Your task to perform on an android device: toggle javascript in the chrome app Image 0: 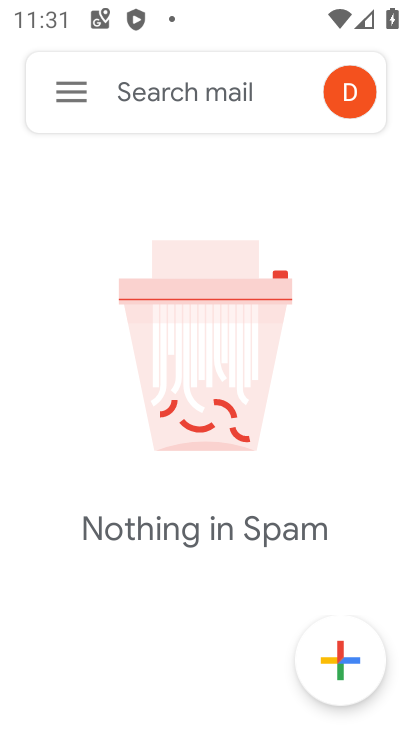
Step 0: press home button
Your task to perform on an android device: toggle javascript in the chrome app Image 1: 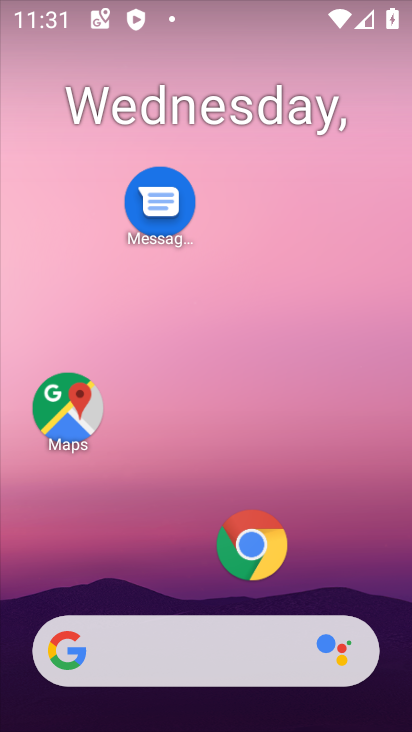
Step 1: click (253, 575)
Your task to perform on an android device: toggle javascript in the chrome app Image 2: 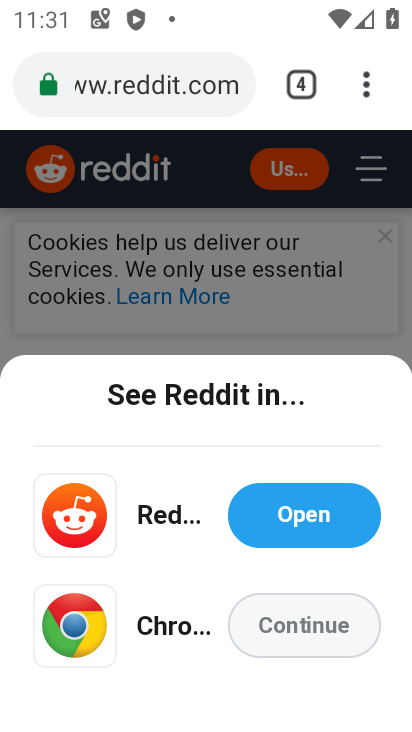
Step 2: click (361, 80)
Your task to perform on an android device: toggle javascript in the chrome app Image 3: 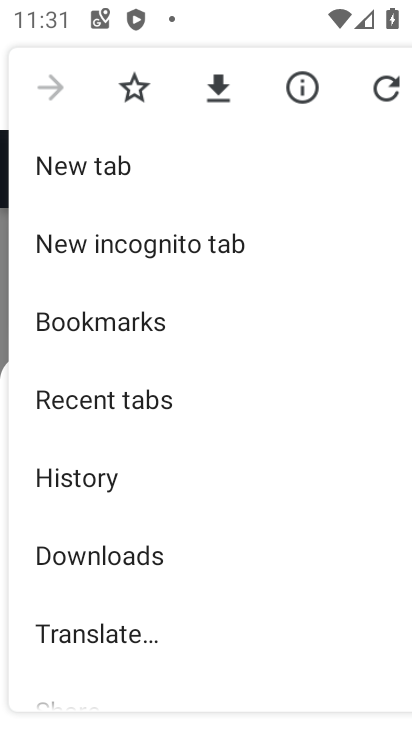
Step 3: drag from (213, 578) to (202, 325)
Your task to perform on an android device: toggle javascript in the chrome app Image 4: 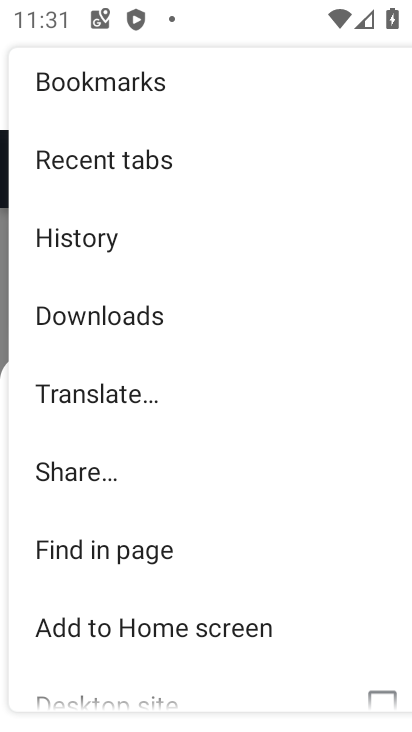
Step 4: drag from (229, 565) to (233, 325)
Your task to perform on an android device: toggle javascript in the chrome app Image 5: 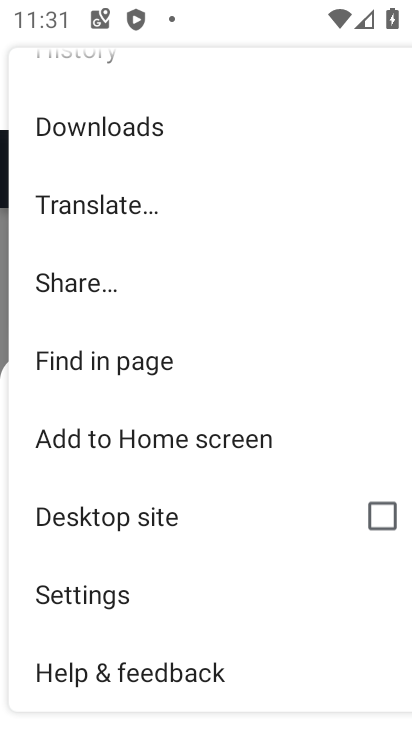
Step 5: click (174, 599)
Your task to perform on an android device: toggle javascript in the chrome app Image 6: 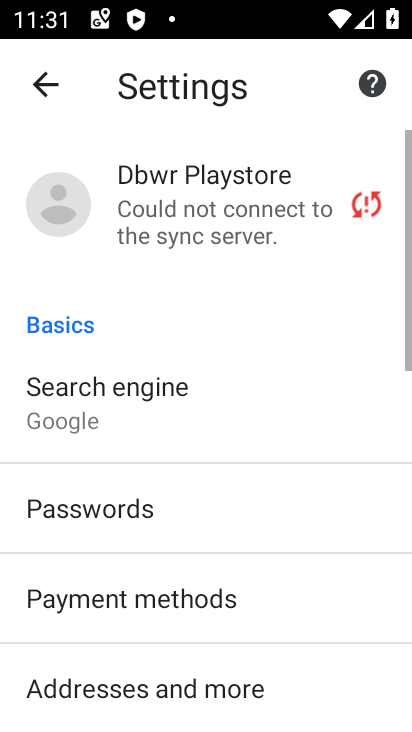
Step 6: drag from (182, 593) to (234, 250)
Your task to perform on an android device: toggle javascript in the chrome app Image 7: 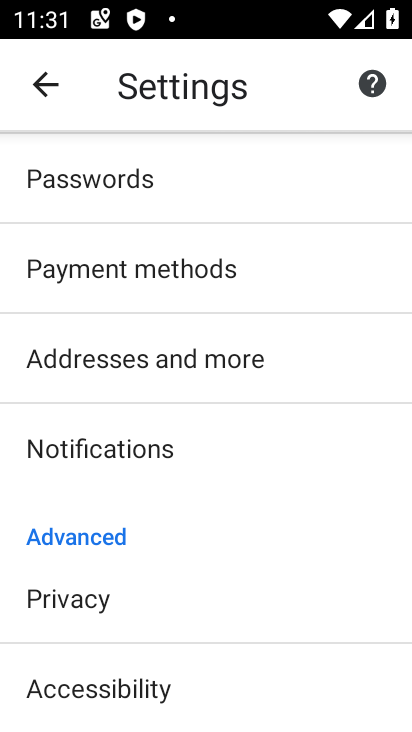
Step 7: drag from (225, 611) to (221, 371)
Your task to perform on an android device: toggle javascript in the chrome app Image 8: 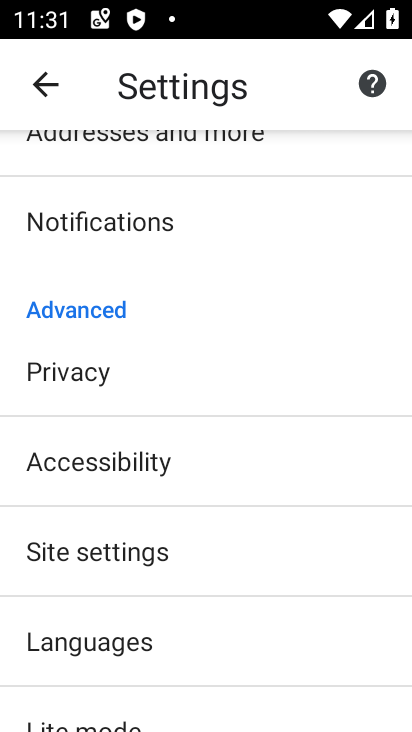
Step 8: drag from (178, 564) to (226, 392)
Your task to perform on an android device: toggle javascript in the chrome app Image 9: 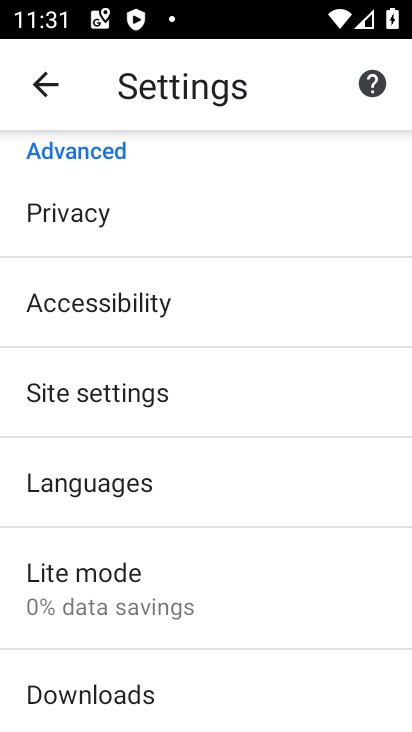
Step 9: click (205, 388)
Your task to perform on an android device: toggle javascript in the chrome app Image 10: 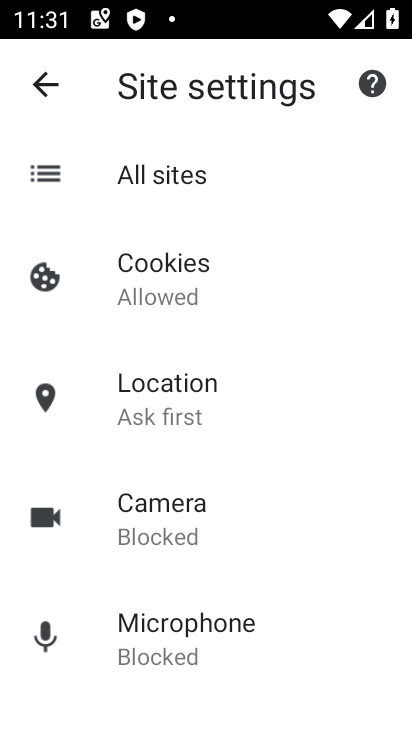
Step 10: drag from (207, 647) to (210, 366)
Your task to perform on an android device: toggle javascript in the chrome app Image 11: 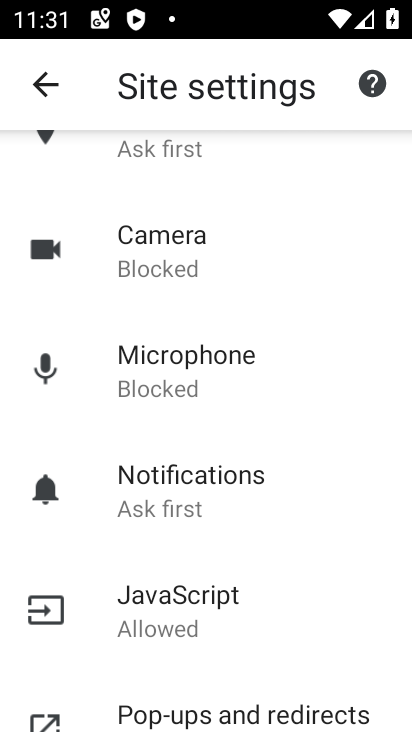
Step 11: click (182, 588)
Your task to perform on an android device: toggle javascript in the chrome app Image 12: 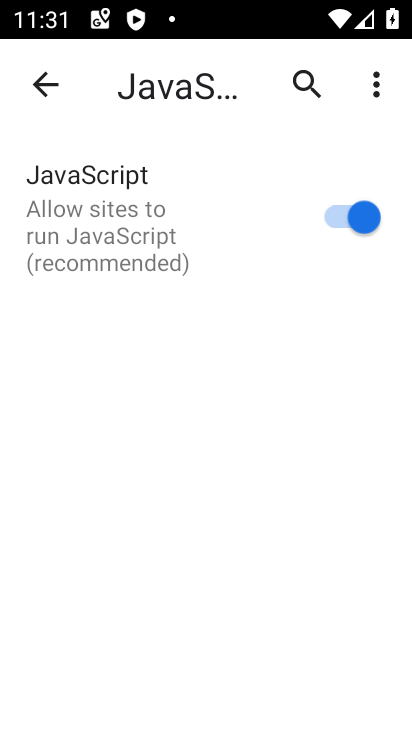
Step 12: click (324, 219)
Your task to perform on an android device: toggle javascript in the chrome app Image 13: 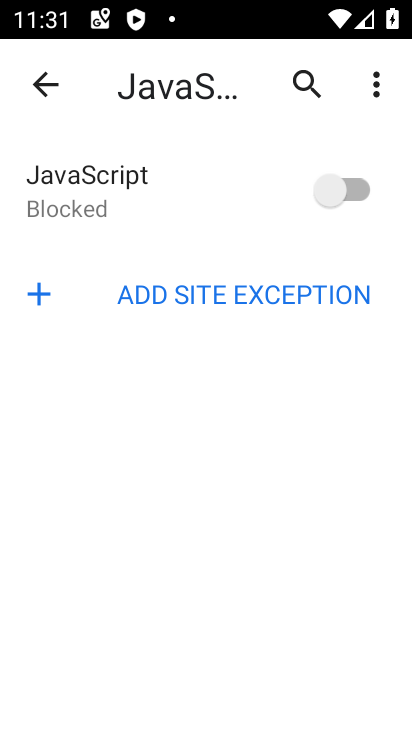
Step 13: task complete